Your task to perform on an android device: See recent photos Image 0: 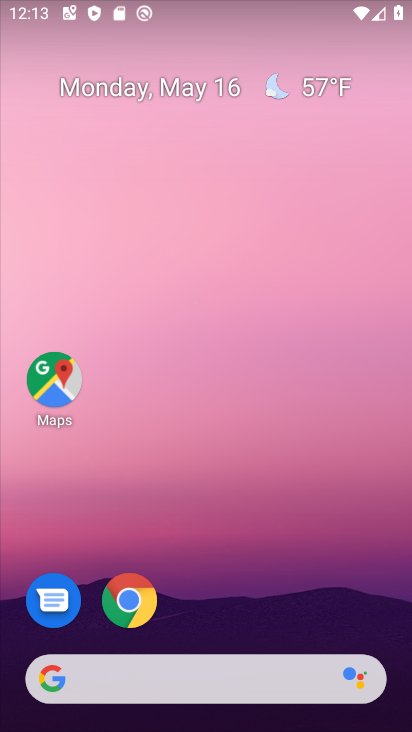
Step 0: drag from (191, 571) to (206, 49)
Your task to perform on an android device: See recent photos Image 1: 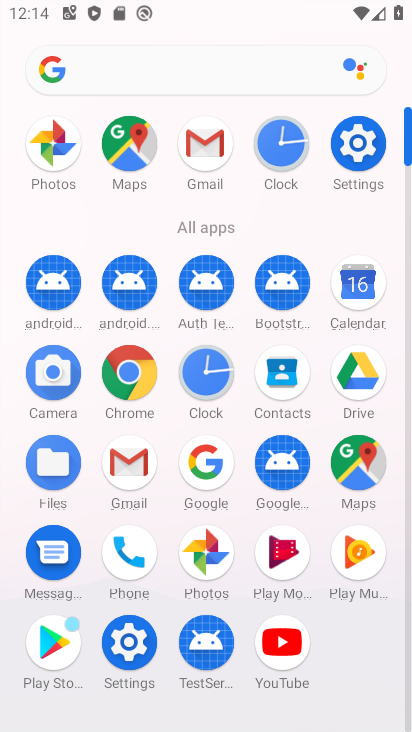
Step 1: click (203, 561)
Your task to perform on an android device: See recent photos Image 2: 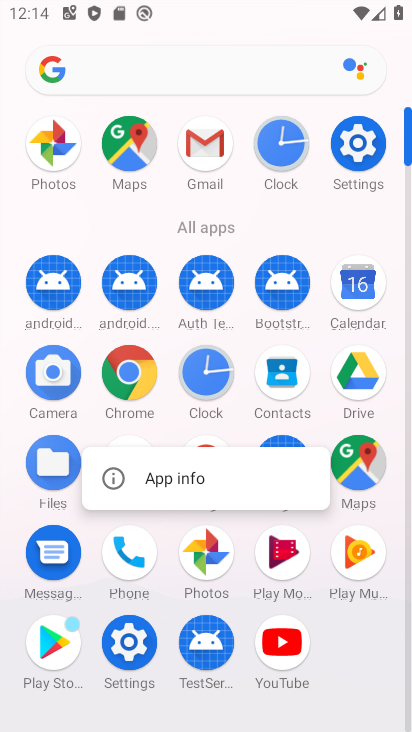
Step 2: click (215, 557)
Your task to perform on an android device: See recent photos Image 3: 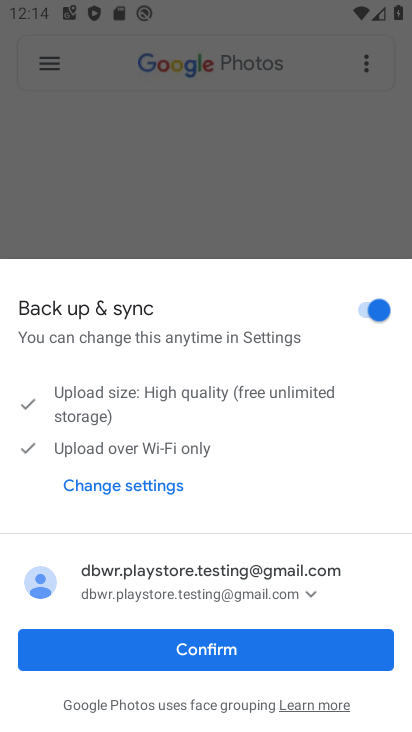
Step 3: click (143, 644)
Your task to perform on an android device: See recent photos Image 4: 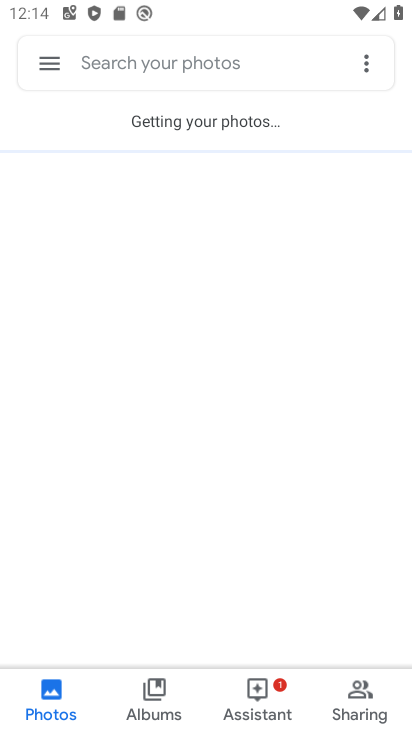
Step 4: click (59, 698)
Your task to perform on an android device: See recent photos Image 5: 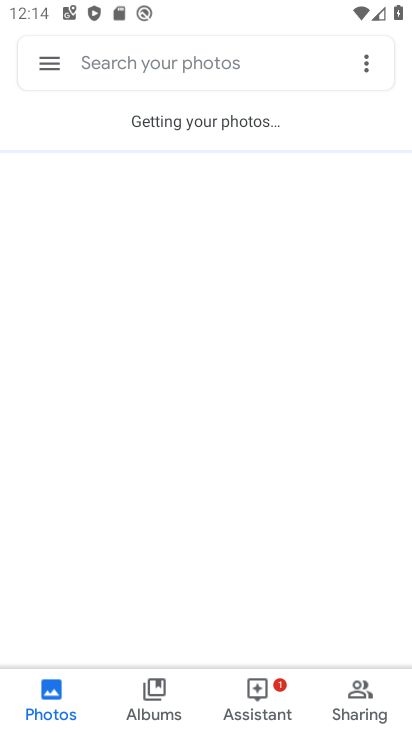
Step 5: task complete